Your task to perform on an android device: What's the weather? Image 0: 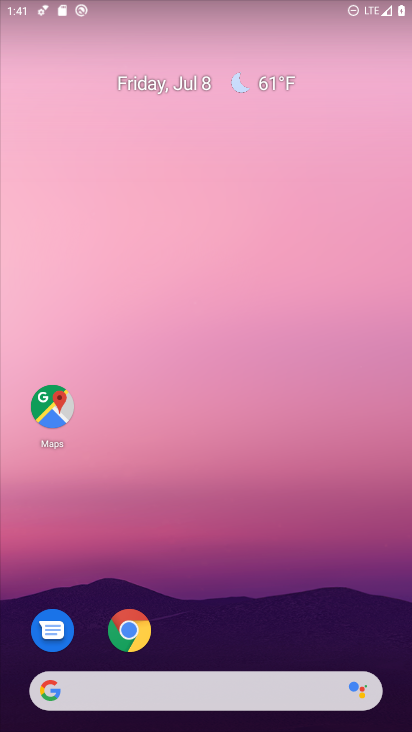
Step 0: drag from (381, 649) to (250, 206)
Your task to perform on an android device: What's the weather? Image 1: 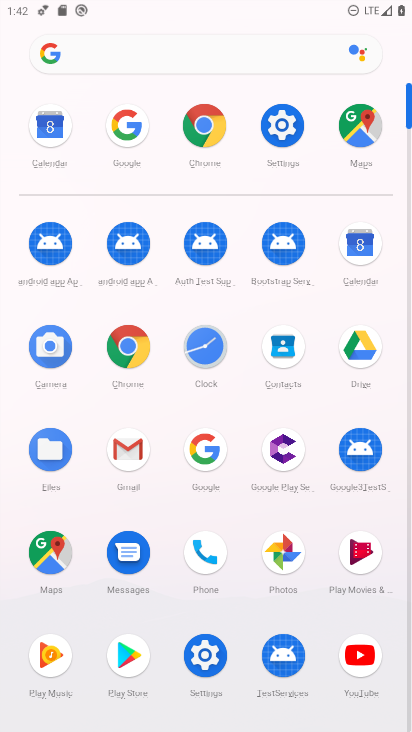
Step 1: click (206, 472)
Your task to perform on an android device: What's the weather? Image 2: 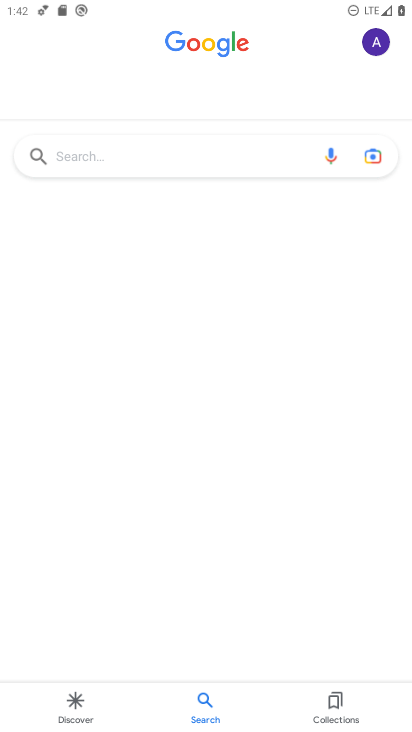
Step 2: type "What's the weather?"
Your task to perform on an android device: What's the weather? Image 3: 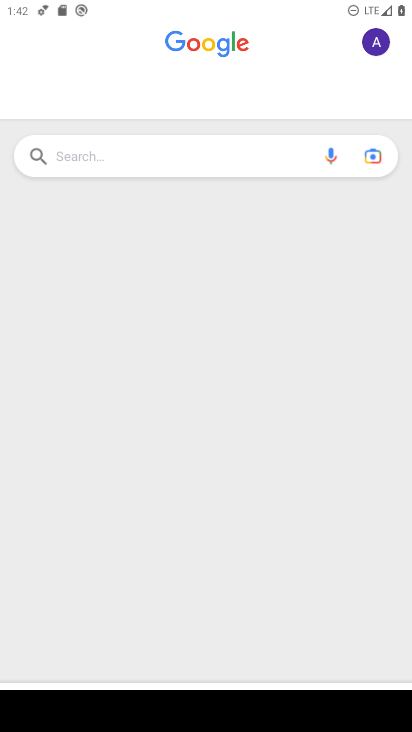
Step 3: task complete